Your task to perform on an android device: turn off sleep mode Image 0: 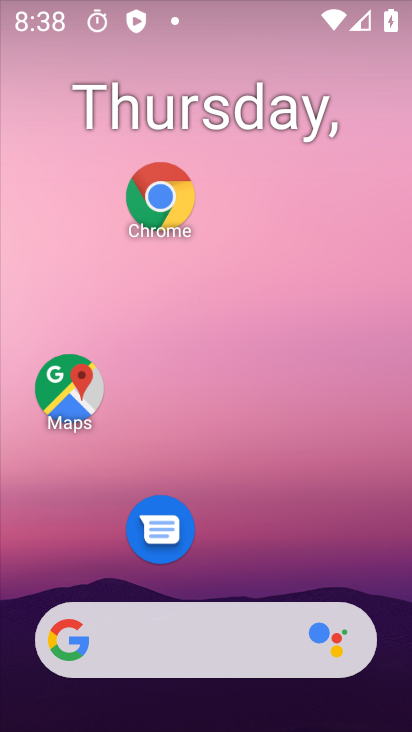
Step 0: drag from (301, 634) to (194, 56)
Your task to perform on an android device: turn off sleep mode Image 1: 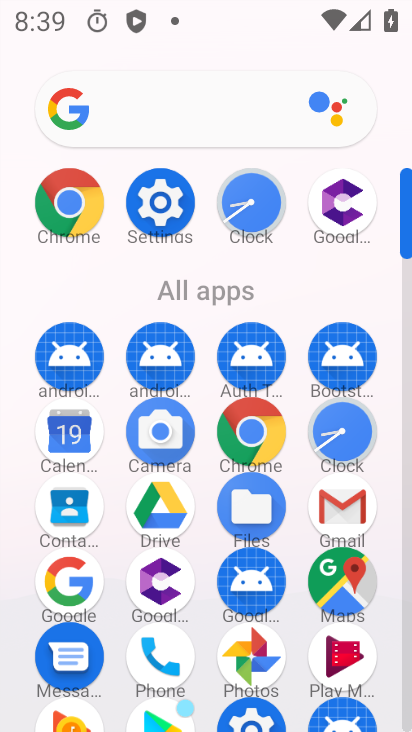
Step 1: click (143, 204)
Your task to perform on an android device: turn off sleep mode Image 2: 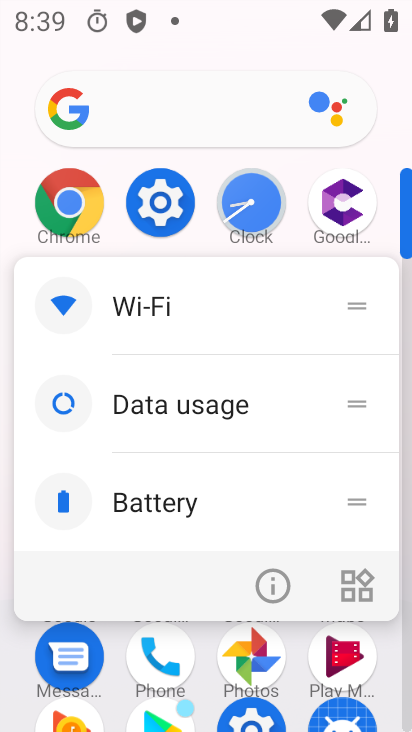
Step 2: click (146, 200)
Your task to perform on an android device: turn off sleep mode Image 3: 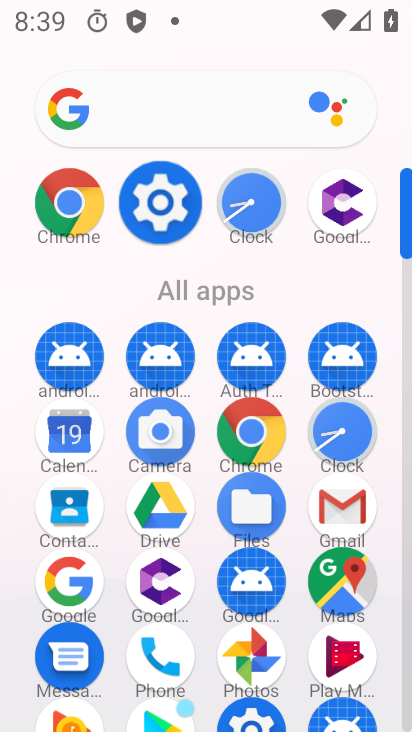
Step 3: click (154, 196)
Your task to perform on an android device: turn off sleep mode Image 4: 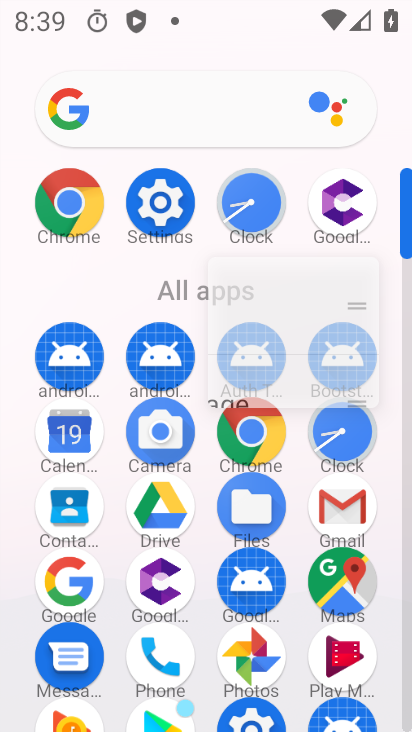
Step 4: click (155, 195)
Your task to perform on an android device: turn off sleep mode Image 5: 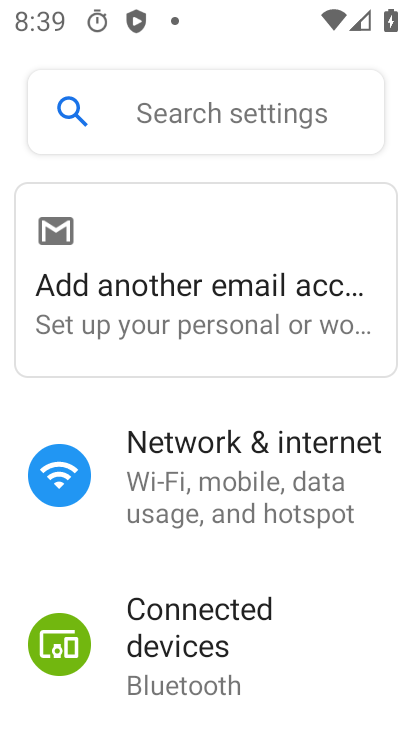
Step 5: drag from (221, 666) to (228, 321)
Your task to perform on an android device: turn off sleep mode Image 6: 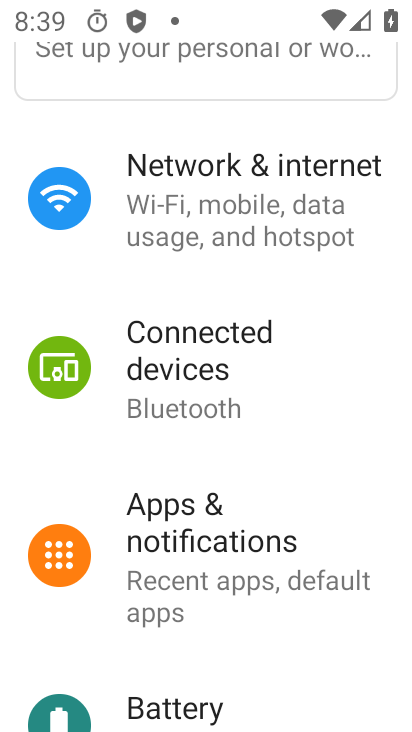
Step 6: drag from (225, 539) to (203, 308)
Your task to perform on an android device: turn off sleep mode Image 7: 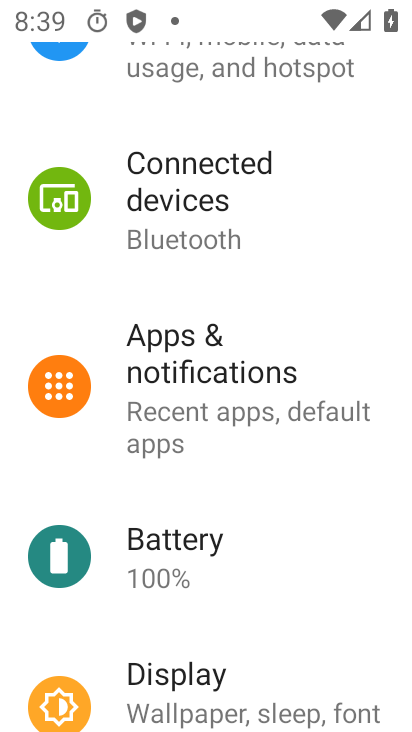
Step 7: drag from (242, 542) to (223, 212)
Your task to perform on an android device: turn off sleep mode Image 8: 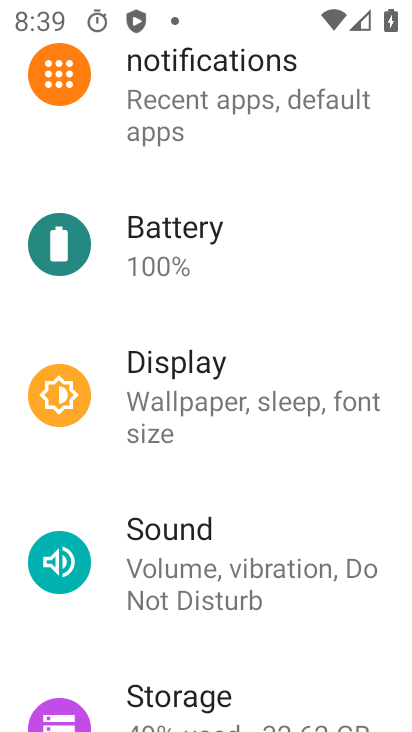
Step 8: click (172, 392)
Your task to perform on an android device: turn off sleep mode Image 9: 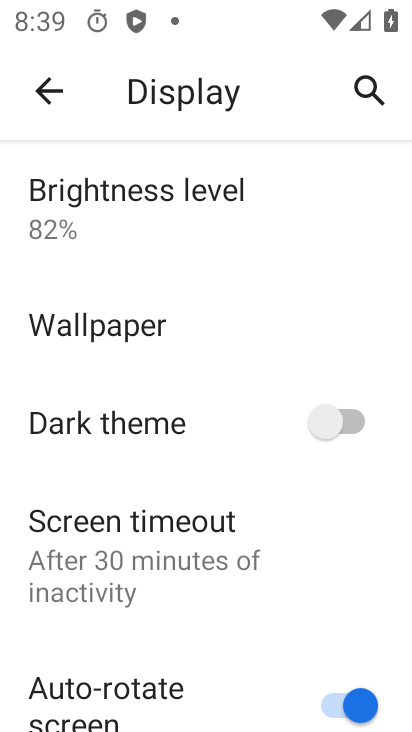
Step 9: task complete